Your task to perform on an android device: Go to accessibility settings Image 0: 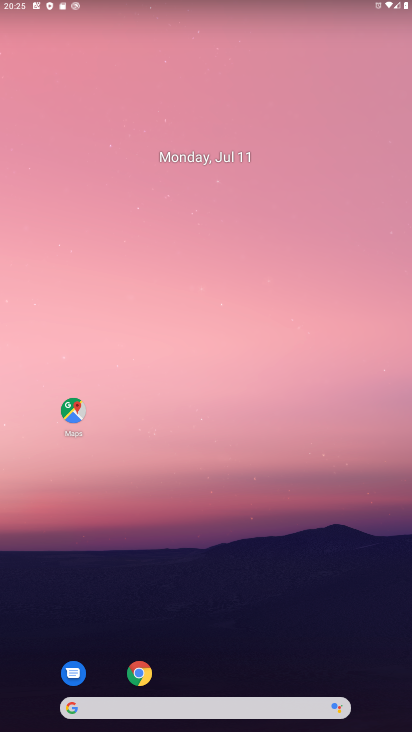
Step 0: drag from (213, 672) to (216, 135)
Your task to perform on an android device: Go to accessibility settings Image 1: 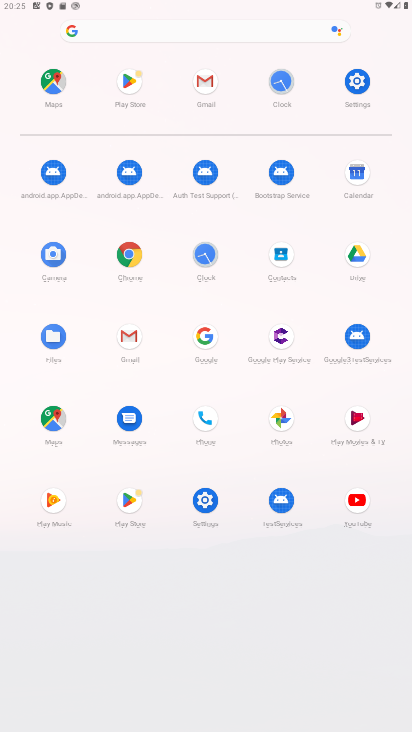
Step 1: click (206, 493)
Your task to perform on an android device: Go to accessibility settings Image 2: 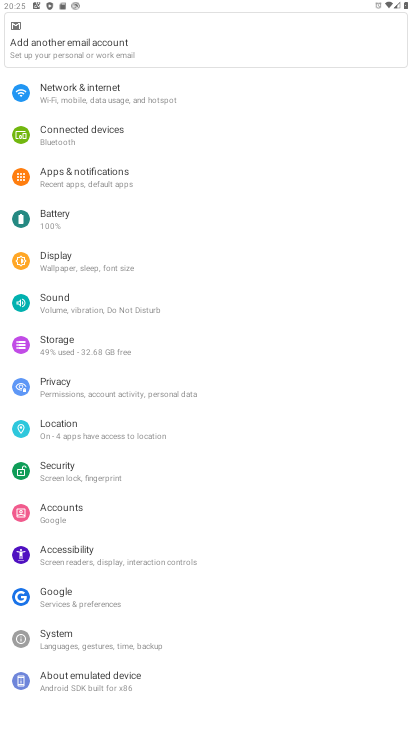
Step 2: click (104, 549)
Your task to perform on an android device: Go to accessibility settings Image 3: 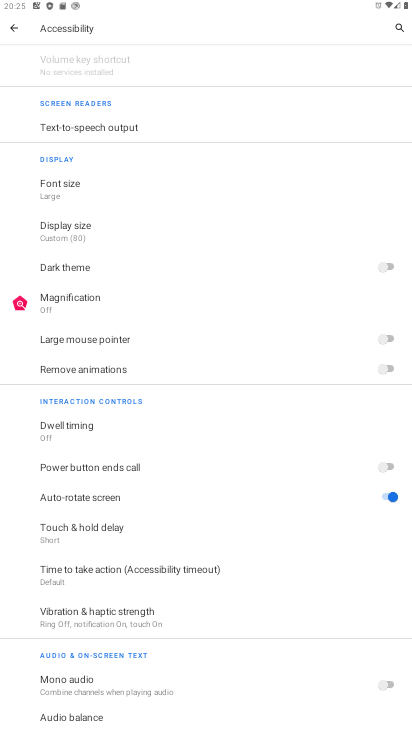
Step 3: task complete